Your task to perform on an android device: check google app version Image 0: 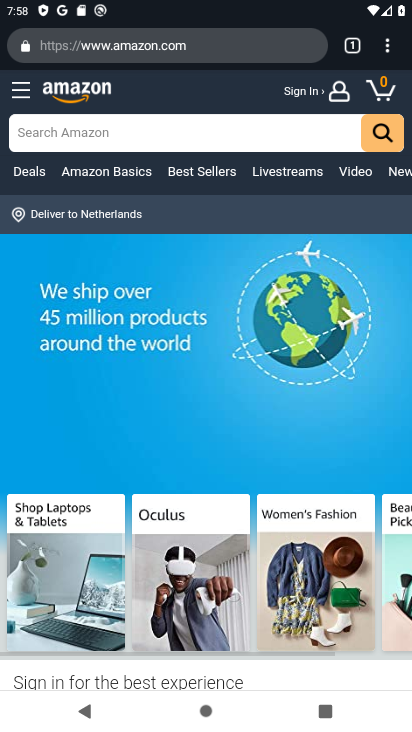
Step 0: press home button
Your task to perform on an android device: check google app version Image 1: 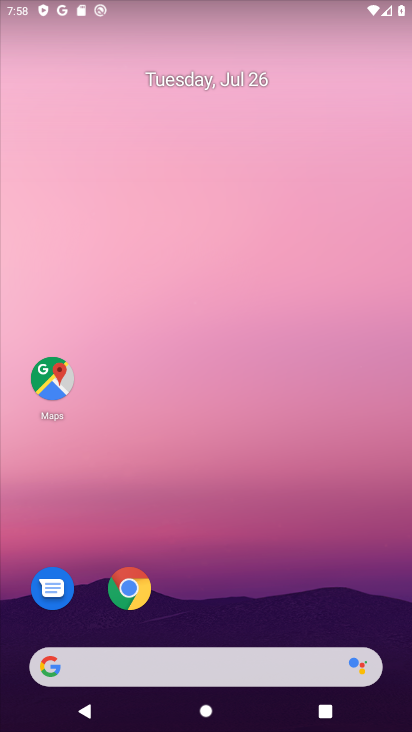
Step 1: press home button
Your task to perform on an android device: check google app version Image 2: 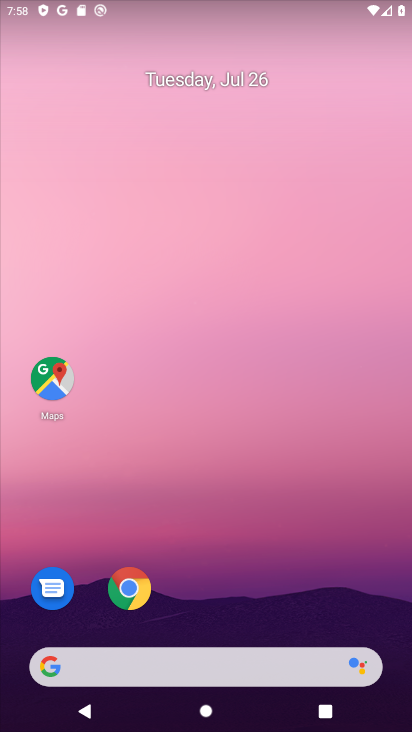
Step 2: drag from (275, 595) to (308, 131)
Your task to perform on an android device: check google app version Image 3: 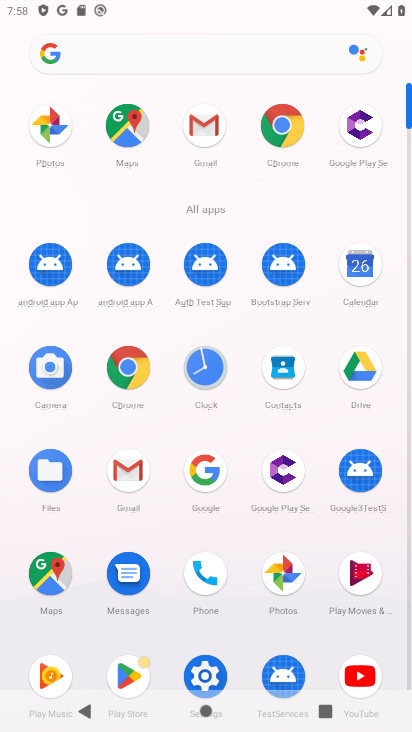
Step 3: click (219, 477)
Your task to perform on an android device: check google app version Image 4: 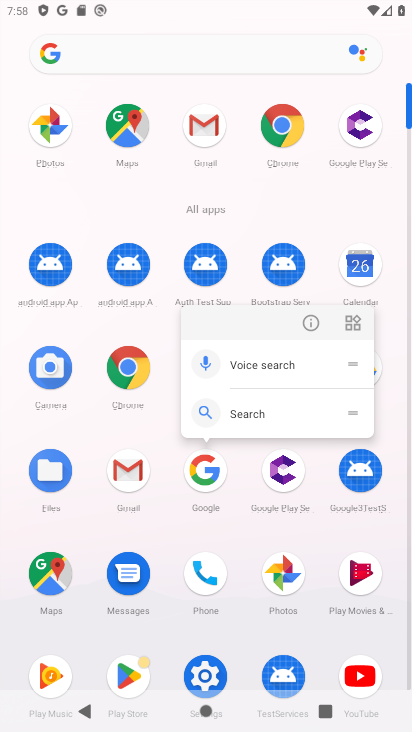
Step 4: click (316, 320)
Your task to perform on an android device: check google app version Image 5: 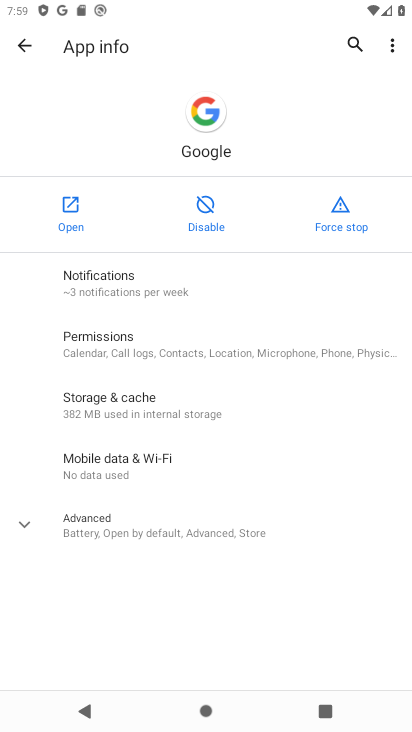
Step 5: click (26, 524)
Your task to perform on an android device: check google app version Image 6: 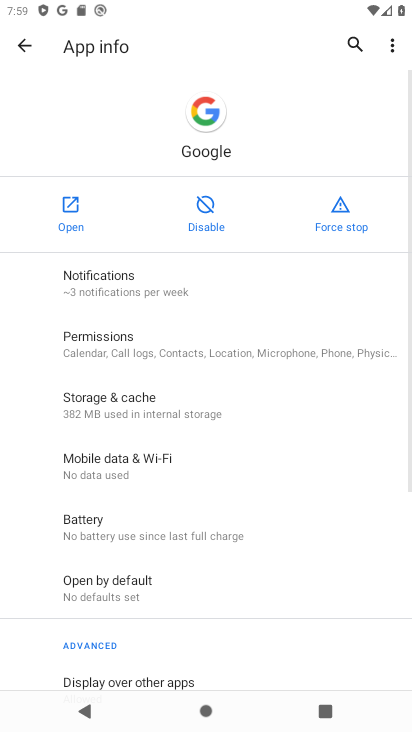
Step 6: task complete